Your task to perform on an android device: Show the shopping cart on costco. Image 0: 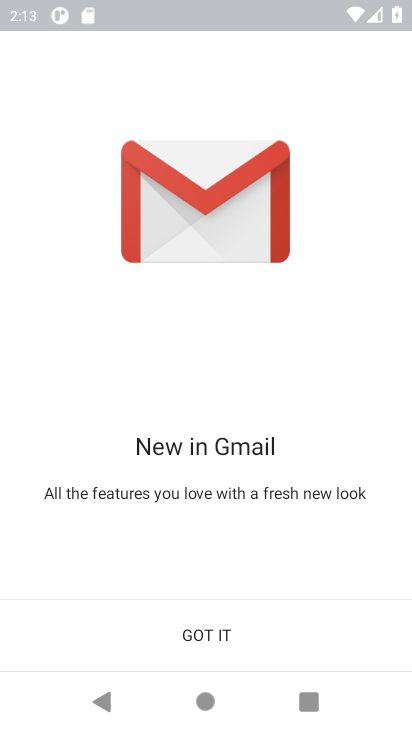
Step 0: press home button
Your task to perform on an android device: Show the shopping cart on costco. Image 1: 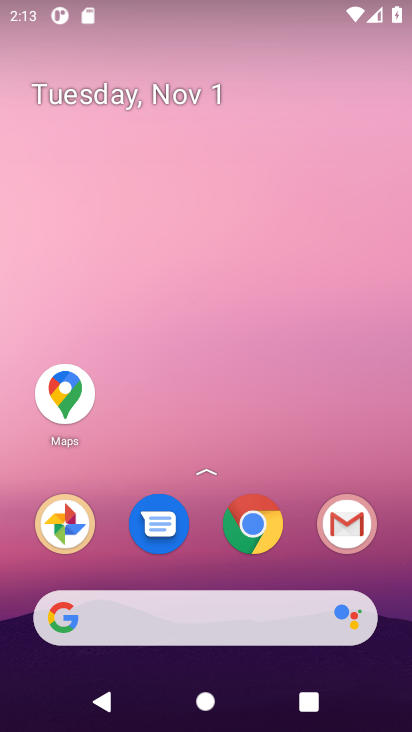
Step 1: click (245, 521)
Your task to perform on an android device: Show the shopping cart on costco. Image 2: 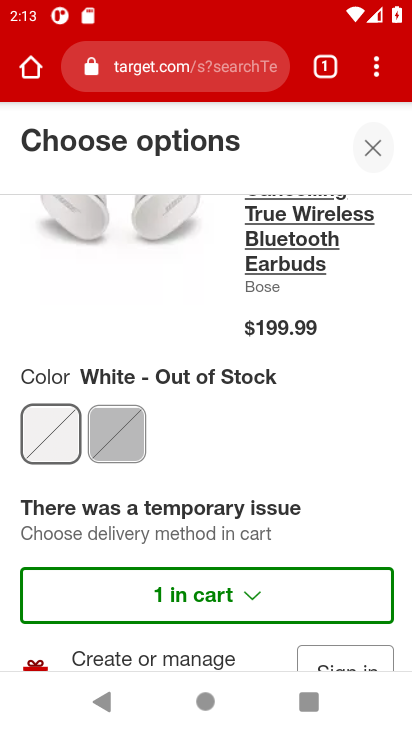
Step 2: click (206, 45)
Your task to perform on an android device: Show the shopping cart on costco. Image 3: 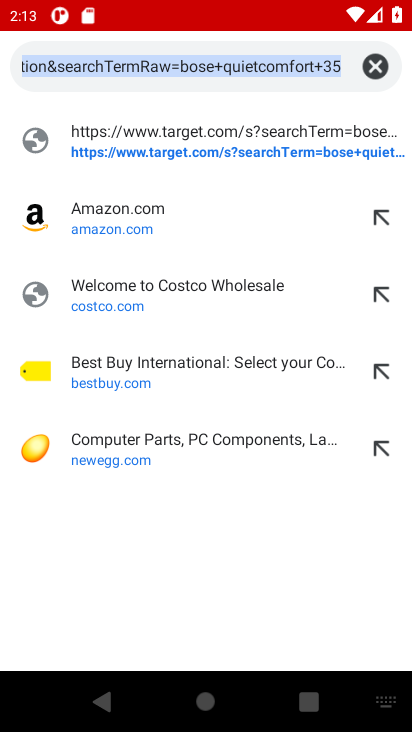
Step 3: click (372, 67)
Your task to perform on an android device: Show the shopping cart on costco. Image 4: 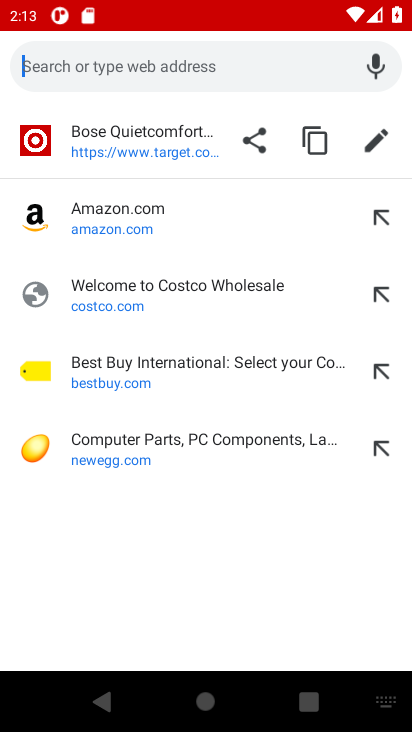
Step 4: type "costco"
Your task to perform on an android device: Show the shopping cart on costco. Image 5: 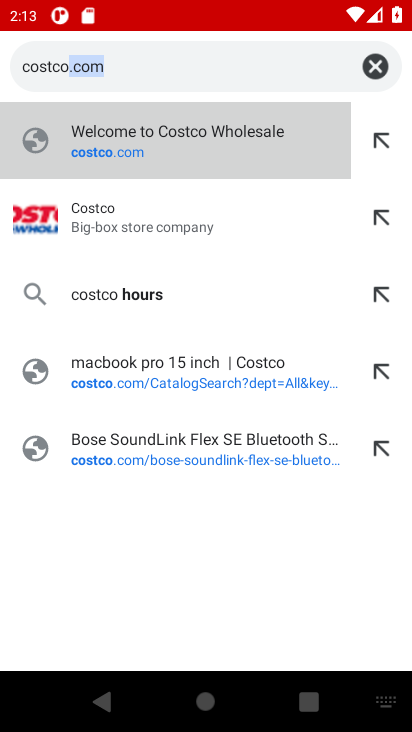
Step 5: click (108, 133)
Your task to perform on an android device: Show the shopping cart on costco. Image 6: 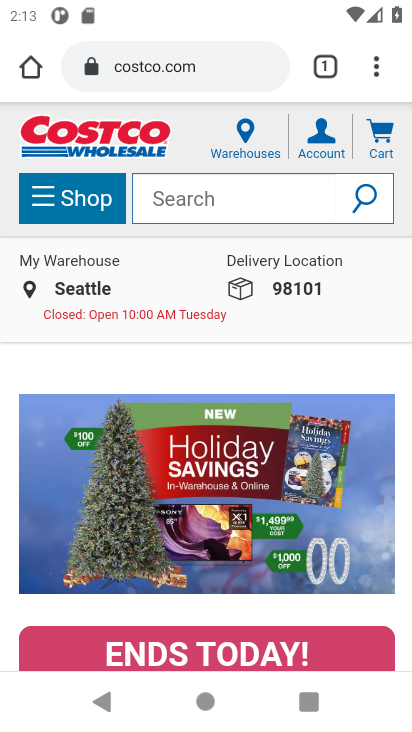
Step 6: click (198, 196)
Your task to perform on an android device: Show the shopping cart on costco. Image 7: 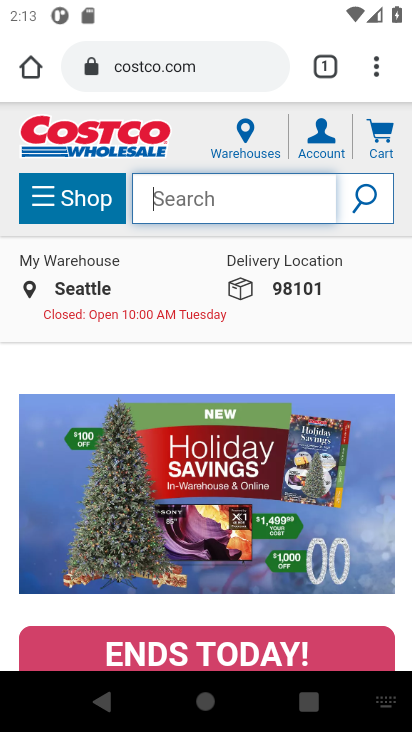
Step 7: click (380, 132)
Your task to perform on an android device: Show the shopping cart on costco. Image 8: 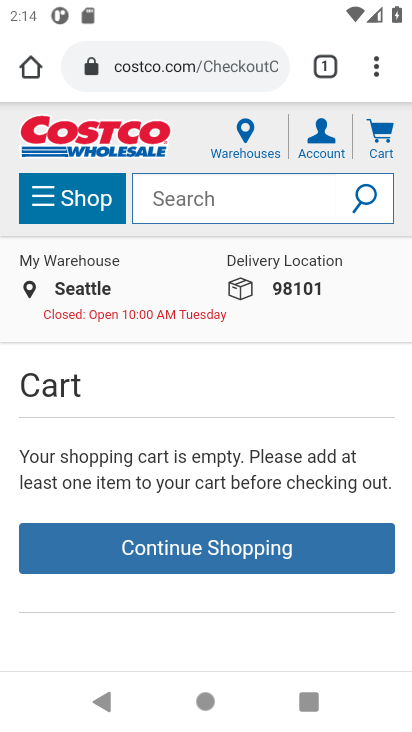
Step 8: task complete